Your task to perform on an android device: Open Chrome and go to settings Image 0: 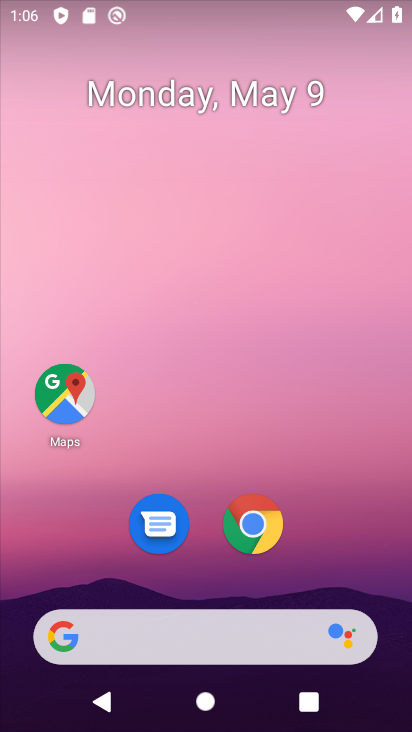
Step 0: click (259, 518)
Your task to perform on an android device: Open Chrome and go to settings Image 1: 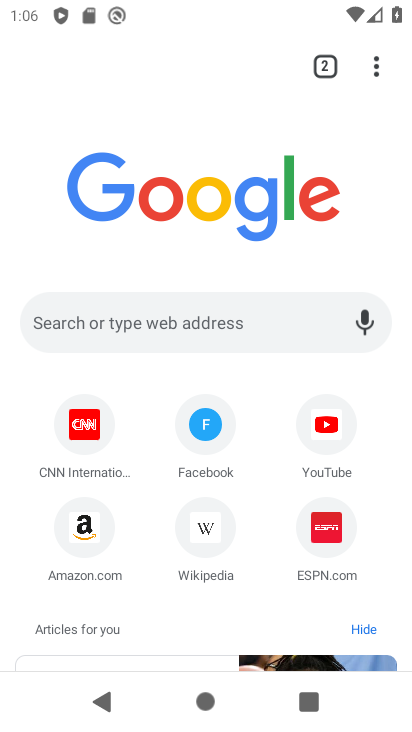
Step 1: click (370, 70)
Your task to perform on an android device: Open Chrome and go to settings Image 2: 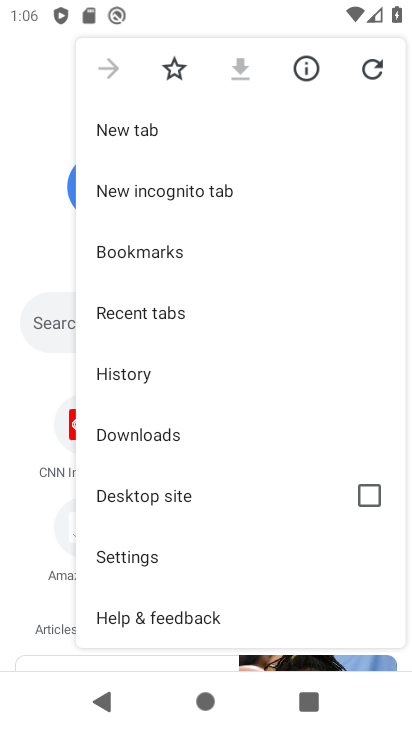
Step 2: click (149, 554)
Your task to perform on an android device: Open Chrome and go to settings Image 3: 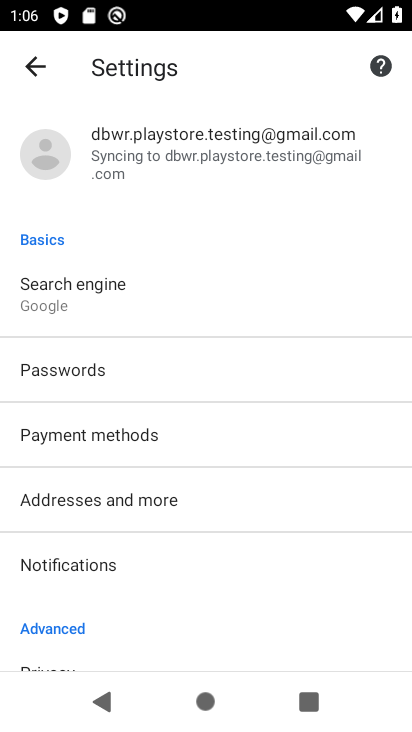
Step 3: task complete